Your task to perform on an android device: Open the web browser Image 0: 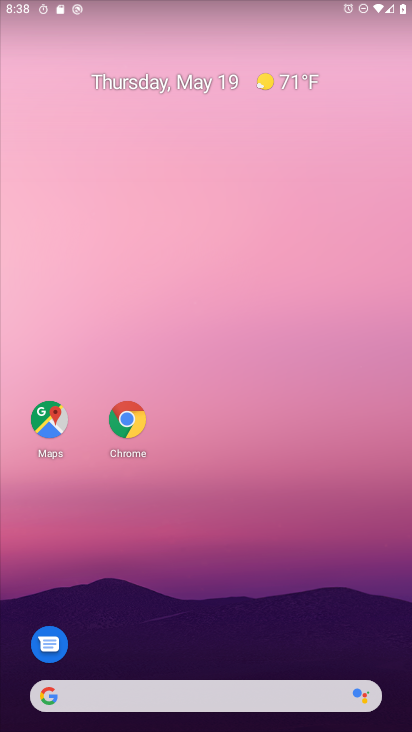
Step 0: click (176, 310)
Your task to perform on an android device: Open the web browser Image 1: 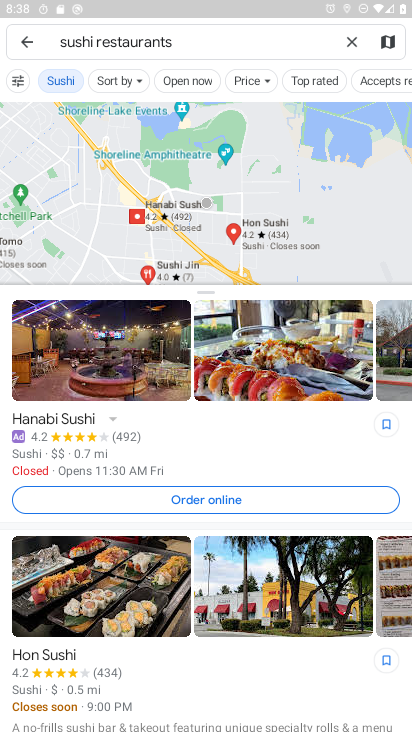
Step 1: press home button
Your task to perform on an android device: Open the web browser Image 2: 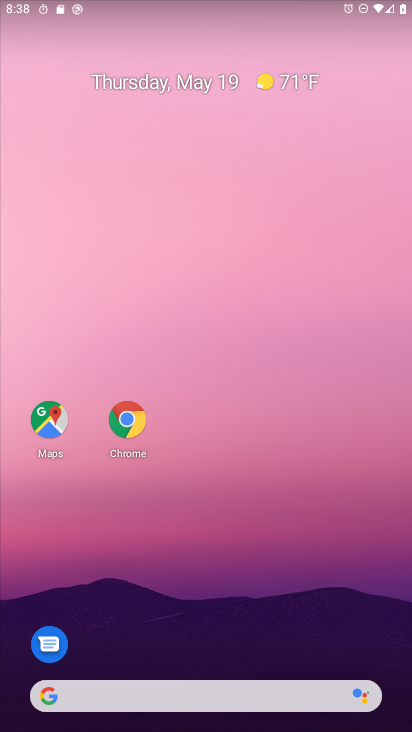
Step 2: click (124, 424)
Your task to perform on an android device: Open the web browser Image 3: 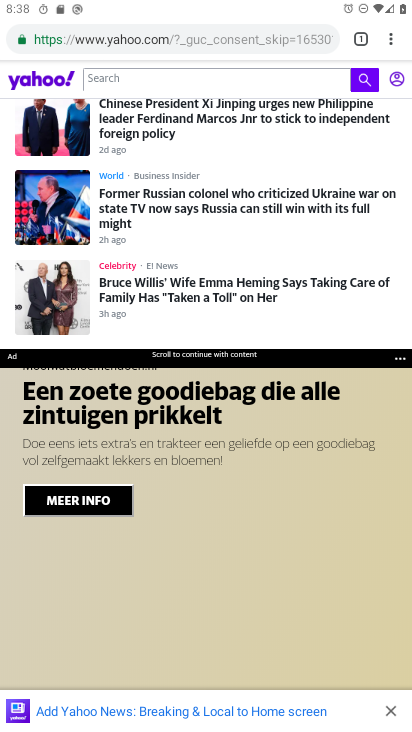
Step 3: task complete